Your task to perform on an android device: add a label to a message in the gmail app Image 0: 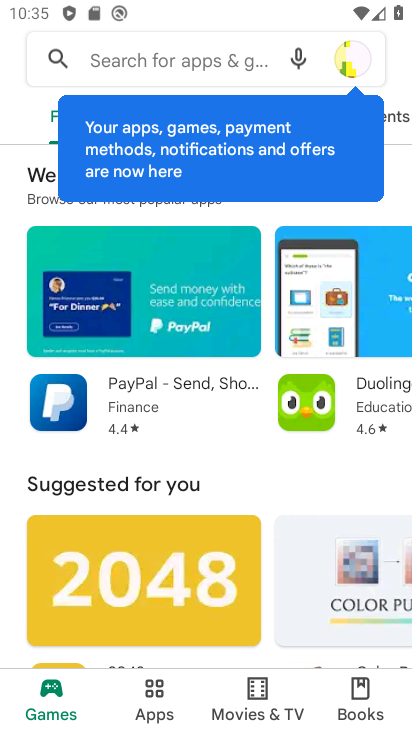
Step 0: press home button
Your task to perform on an android device: add a label to a message in the gmail app Image 1: 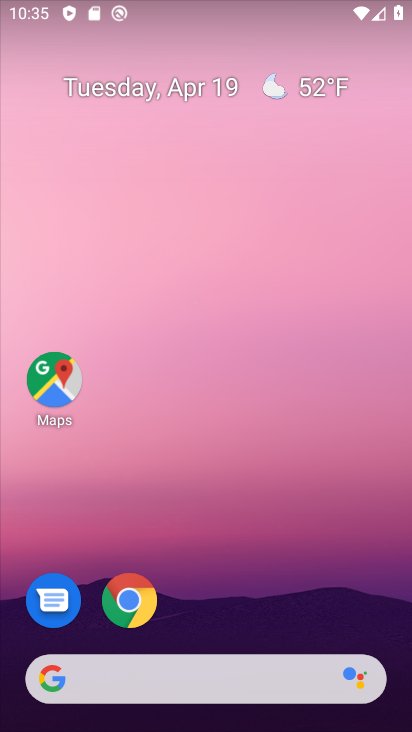
Step 1: drag from (223, 647) to (365, 503)
Your task to perform on an android device: add a label to a message in the gmail app Image 2: 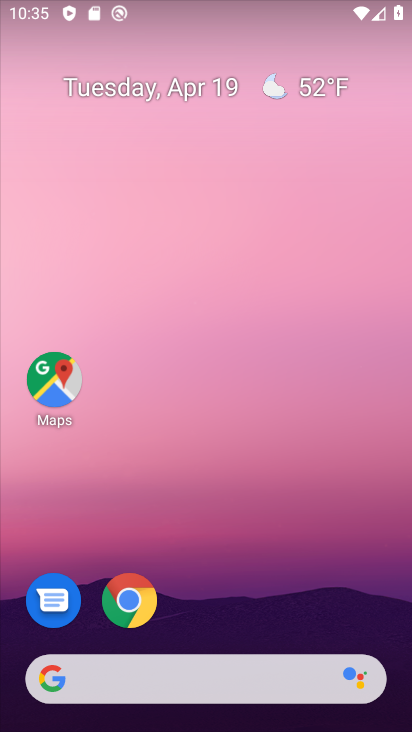
Step 2: drag from (251, 630) to (230, 49)
Your task to perform on an android device: add a label to a message in the gmail app Image 3: 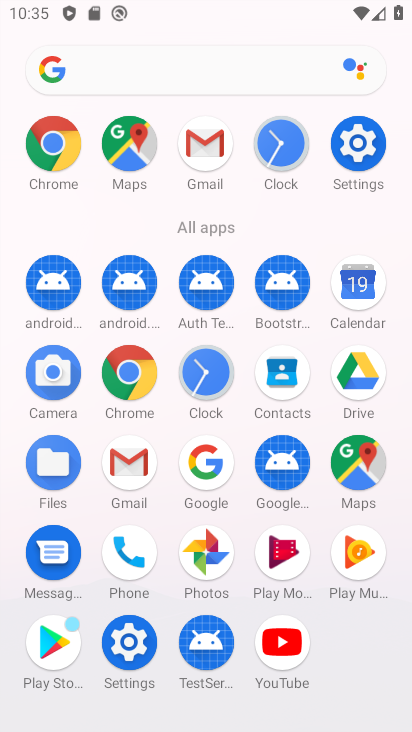
Step 3: click (124, 463)
Your task to perform on an android device: add a label to a message in the gmail app Image 4: 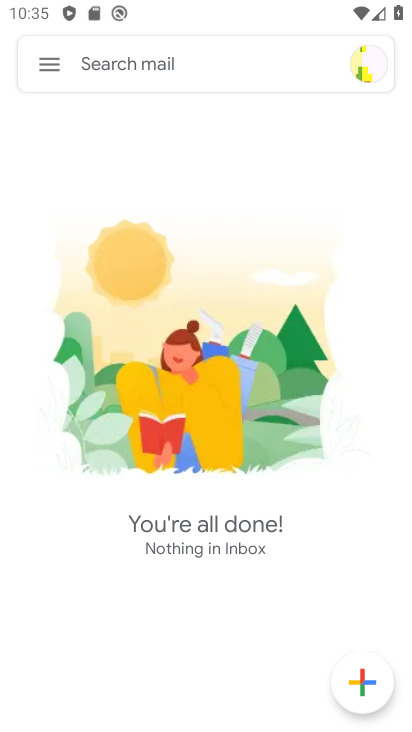
Step 4: task complete